Your task to perform on an android device: Open battery settings Image 0: 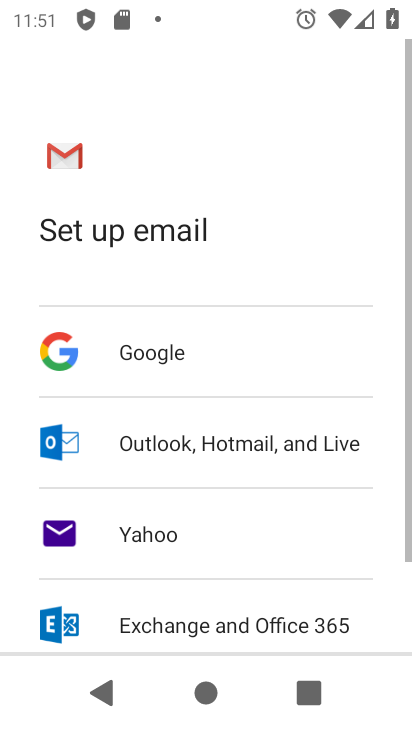
Step 0: drag from (212, 601) to (175, 178)
Your task to perform on an android device: Open battery settings Image 1: 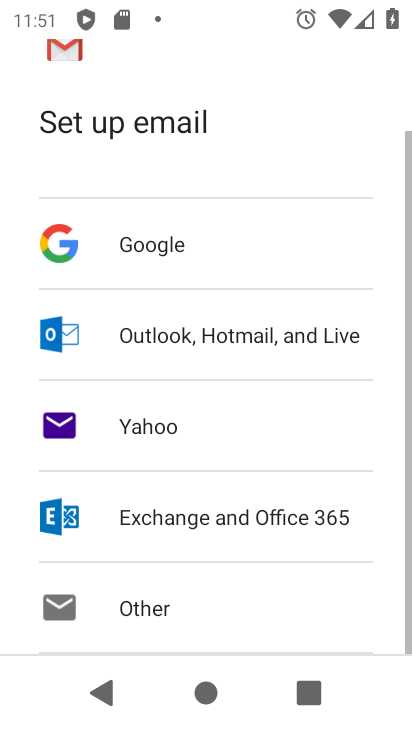
Step 1: press home button
Your task to perform on an android device: Open battery settings Image 2: 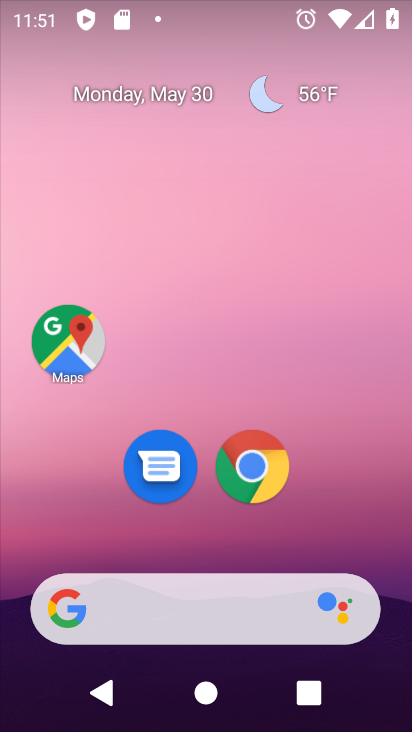
Step 2: drag from (215, 582) to (199, 176)
Your task to perform on an android device: Open battery settings Image 3: 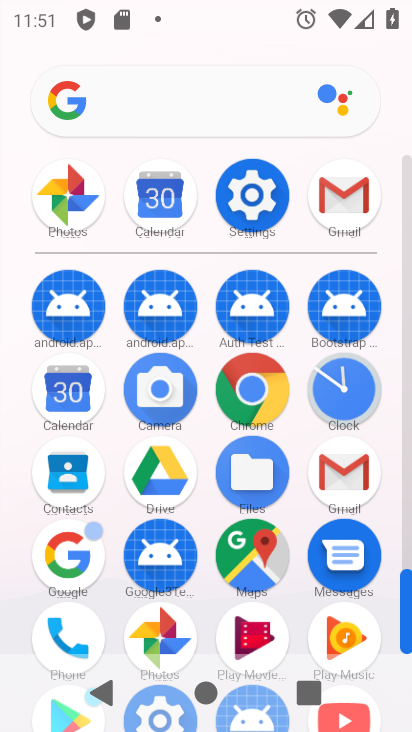
Step 3: click (265, 188)
Your task to perform on an android device: Open battery settings Image 4: 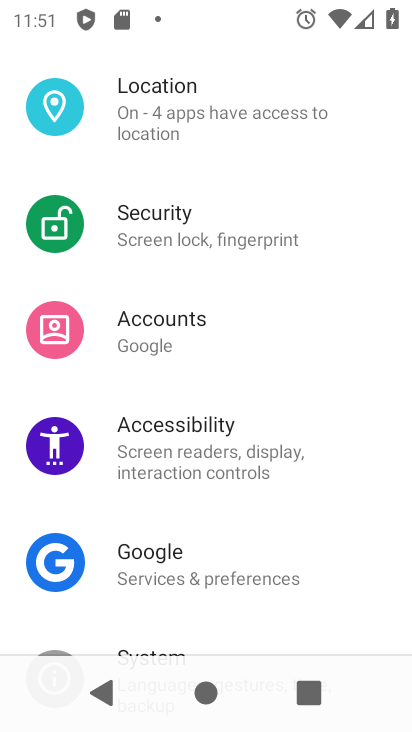
Step 4: drag from (208, 149) to (218, 617)
Your task to perform on an android device: Open battery settings Image 5: 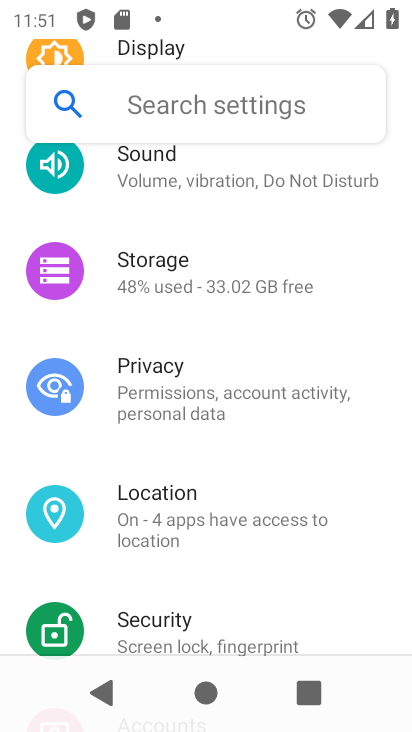
Step 5: drag from (217, 71) to (260, 604)
Your task to perform on an android device: Open battery settings Image 6: 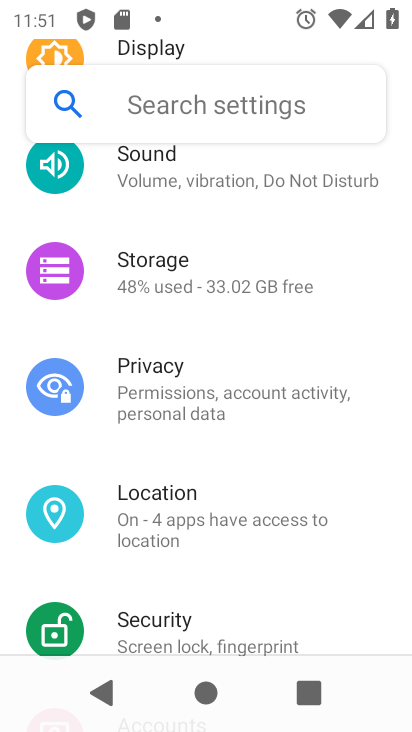
Step 6: drag from (233, 235) to (251, 662)
Your task to perform on an android device: Open battery settings Image 7: 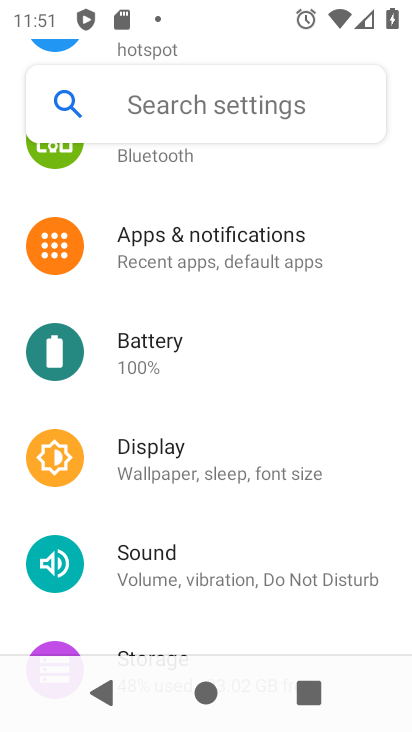
Step 7: click (157, 363)
Your task to perform on an android device: Open battery settings Image 8: 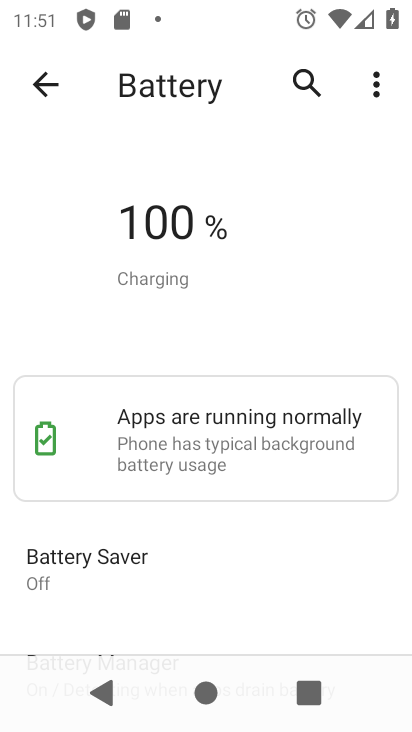
Step 8: task complete